Your task to perform on an android device: move a message to another label in the gmail app Image 0: 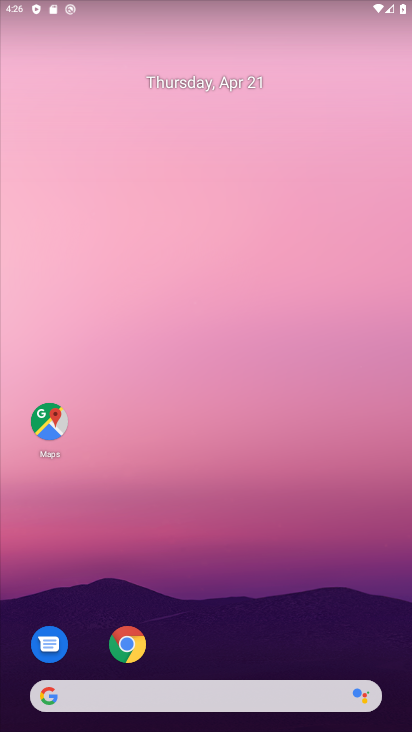
Step 0: drag from (223, 605) to (253, 286)
Your task to perform on an android device: move a message to another label in the gmail app Image 1: 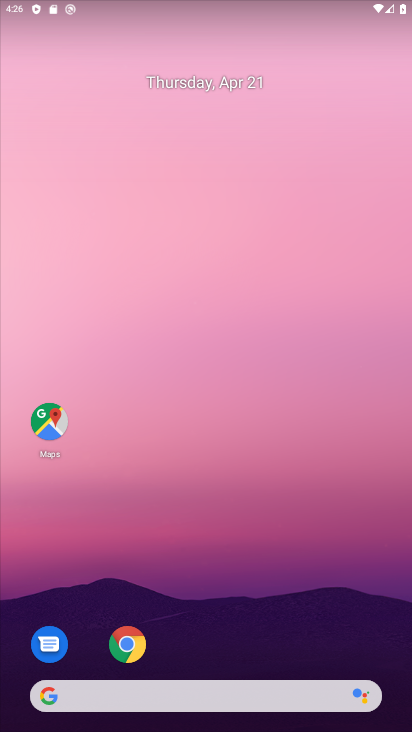
Step 1: drag from (206, 671) to (231, 158)
Your task to perform on an android device: move a message to another label in the gmail app Image 2: 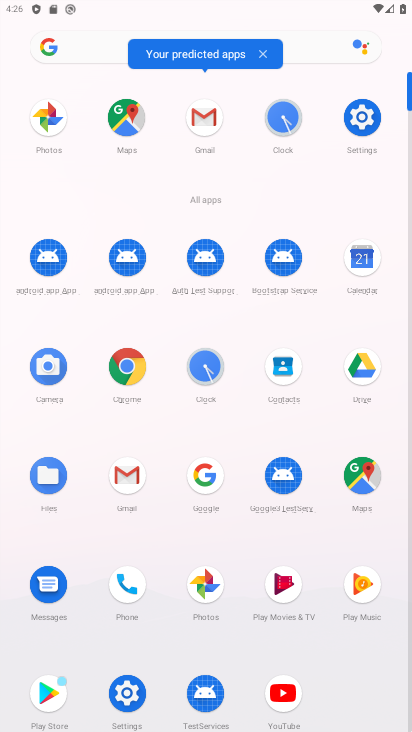
Step 2: click (201, 125)
Your task to perform on an android device: move a message to another label in the gmail app Image 3: 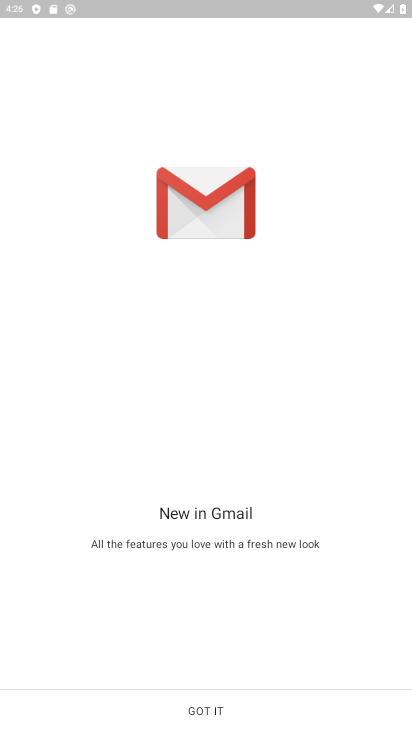
Step 3: click (204, 709)
Your task to perform on an android device: move a message to another label in the gmail app Image 4: 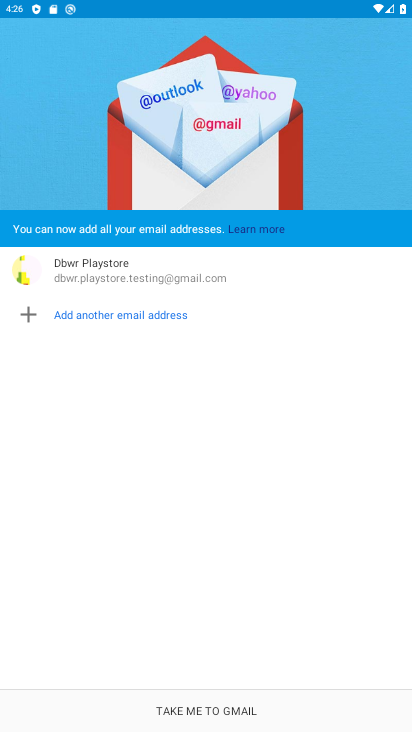
Step 4: click (194, 709)
Your task to perform on an android device: move a message to another label in the gmail app Image 5: 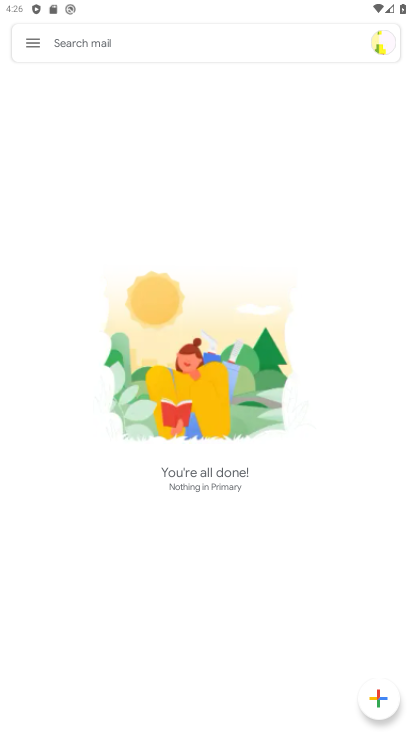
Step 5: task complete